Your task to perform on an android device: toggle notification dots Image 0: 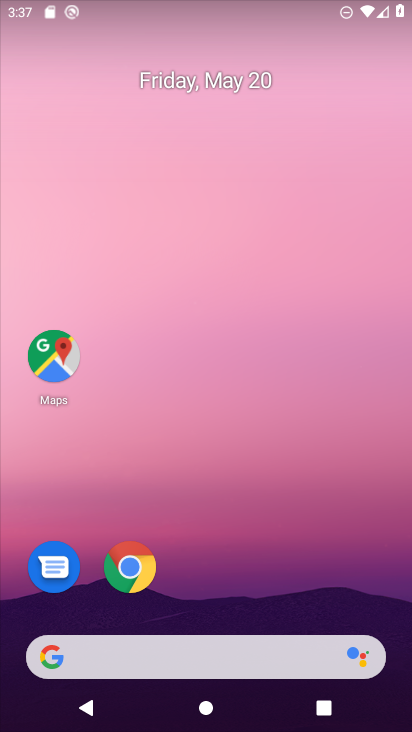
Step 0: drag from (236, 729) to (232, 153)
Your task to perform on an android device: toggle notification dots Image 1: 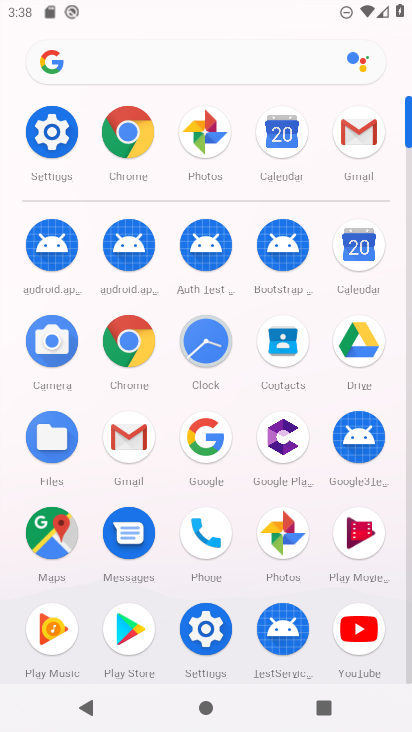
Step 1: click (52, 136)
Your task to perform on an android device: toggle notification dots Image 2: 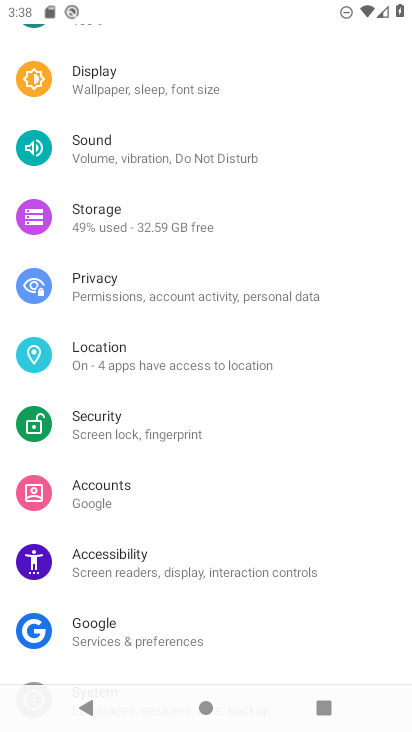
Step 2: drag from (210, 152) to (226, 568)
Your task to perform on an android device: toggle notification dots Image 3: 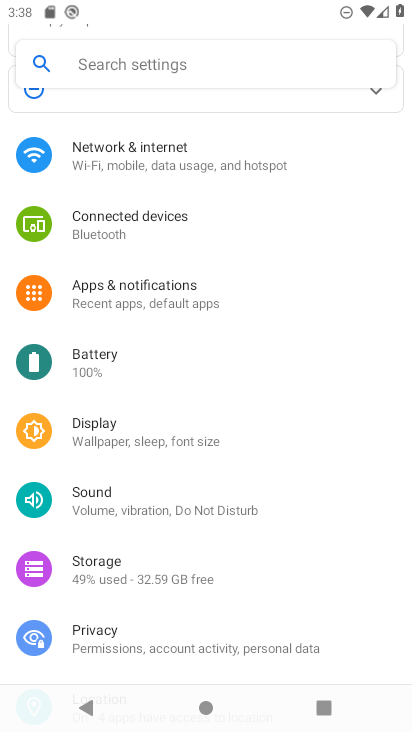
Step 3: click (148, 289)
Your task to perform on an android device: toggle notification dots Image 4: 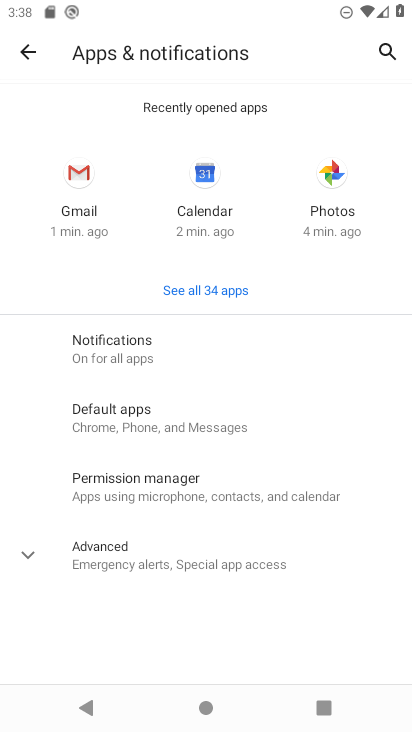
Step 4: click (109, 343)
Your task to perform on an android device: toggle notification dots Image 5: 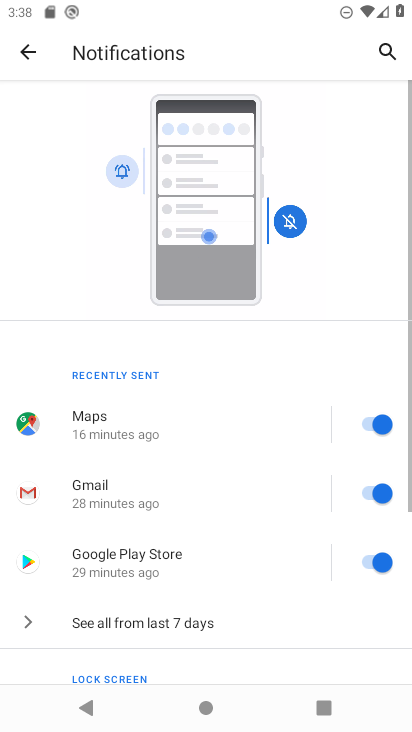
Step 5: drag from (231, 661) to (238, 372)
Your task to perform on an android device: toggle notification dots Image 6: 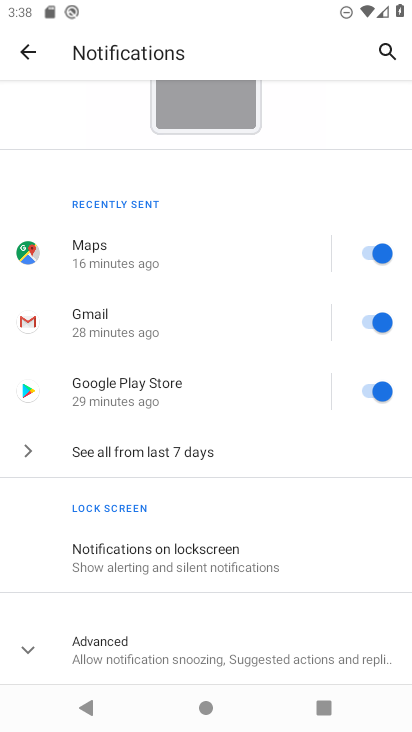
Step 6: click (165, 653)
Your task to perform on an android device: toggle notification dots Image 7: 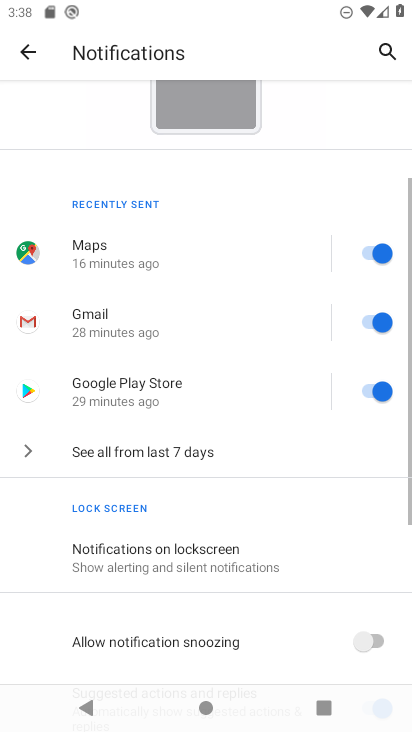
Step 7: drag from (200, 642) to (197, 329)
Your task to perform on an android device: toggle notification dots Image 8: 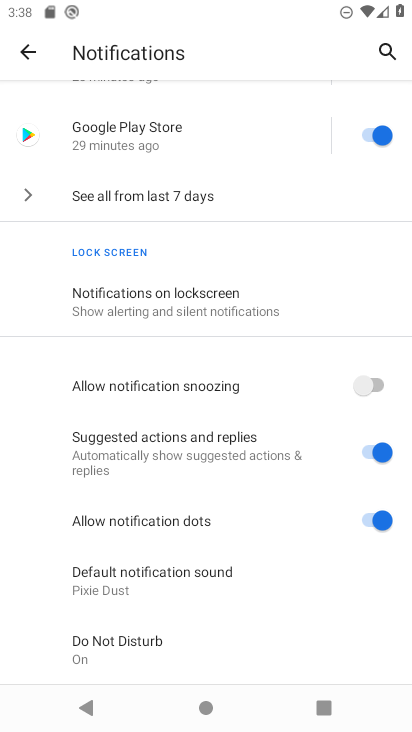
Step 8: click (374, 515)
Your task to perform on an android device: toggle notification dots Image 9: 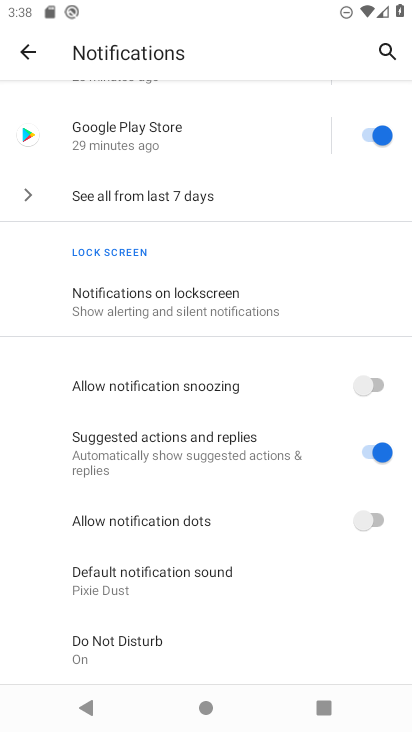
Step 9: task complete